Your task to perform on an android device: toggle notifications settings in the gmail app Image 0: 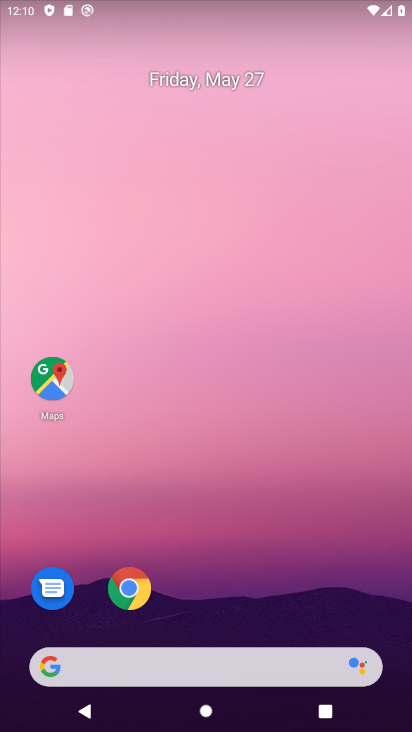
Step 0: drag from (219, 621) to (201, 23)
Your task to perform on an android device: toggle notifications settings in the gmail app Image 1: 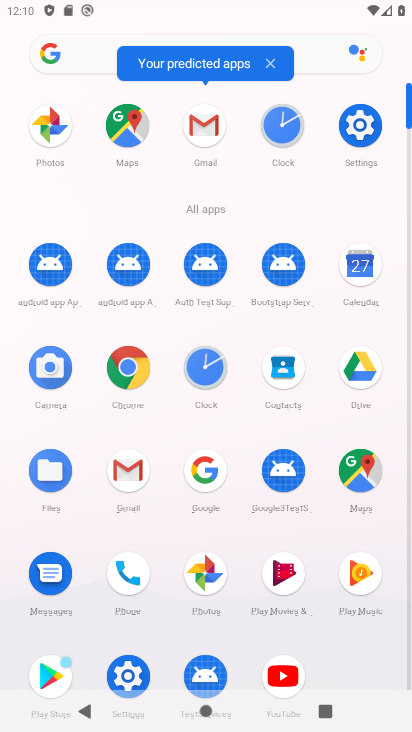
Step 1: click (136, 479)
Your task to perform on an android device: toggle notifications settings in the gmail app Image 2: 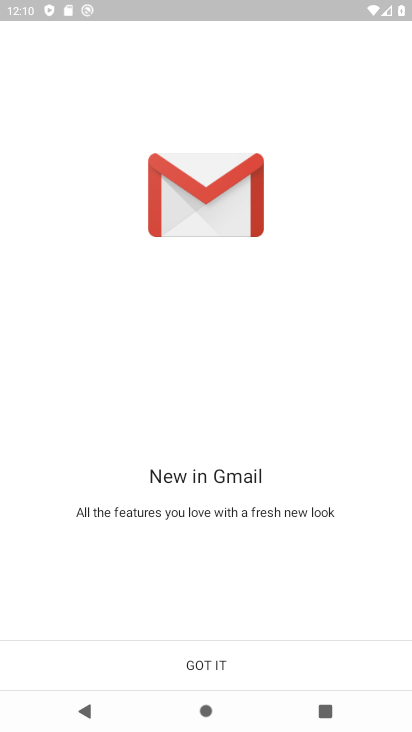
Step 2: click (233, 653)
Your task to perform on an android device: toggle notifications settings in the gmail app Image 3: 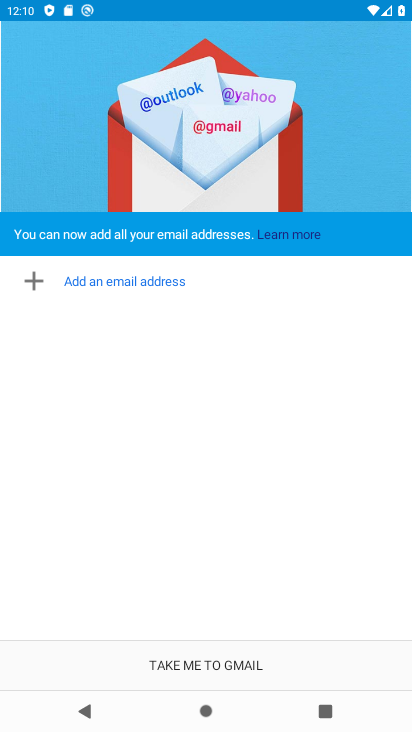
Step 3: click (234, 652)
Your task to perform on an android device: toggle notifications settings in the gmail app Image 4: 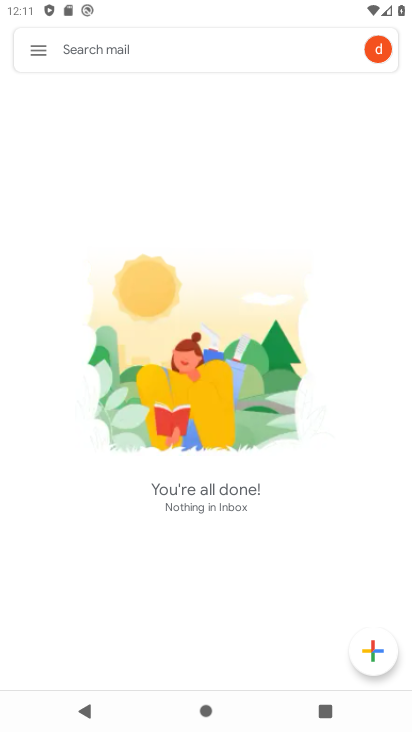
Step 4: press home button
Your task to perform on an android device: toggle notifications settings in the gmail app Image 5: 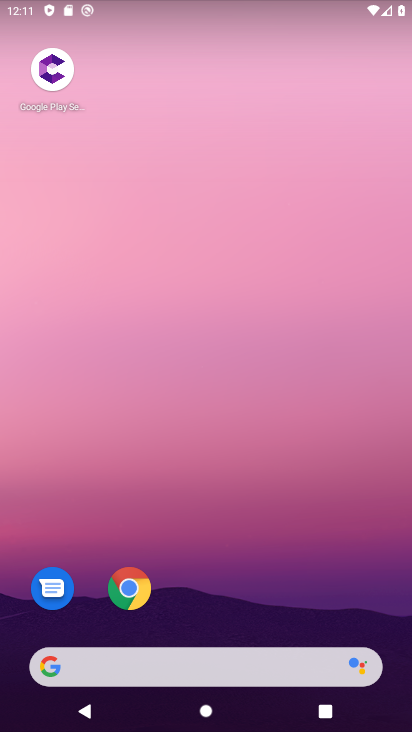
Step 5: drag from (207, 642) to (350, 6)
Your task to perform on an android device: toggle notifications settings in the gmail app Image 6: 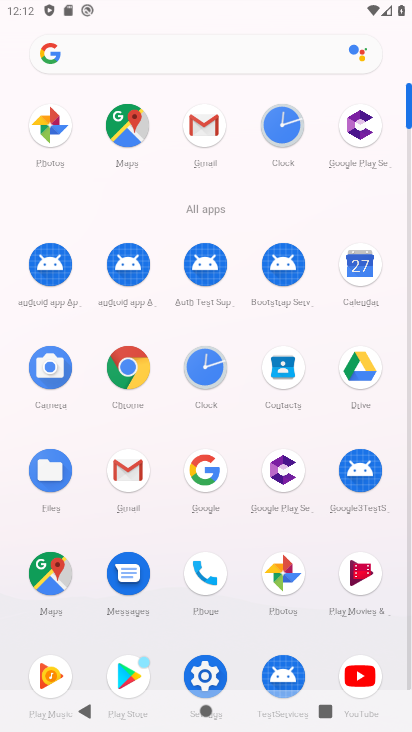
Step 6: click (125, 465)
Your task to perform on an android device: toggle notifications settings in the gmail app Image 7: 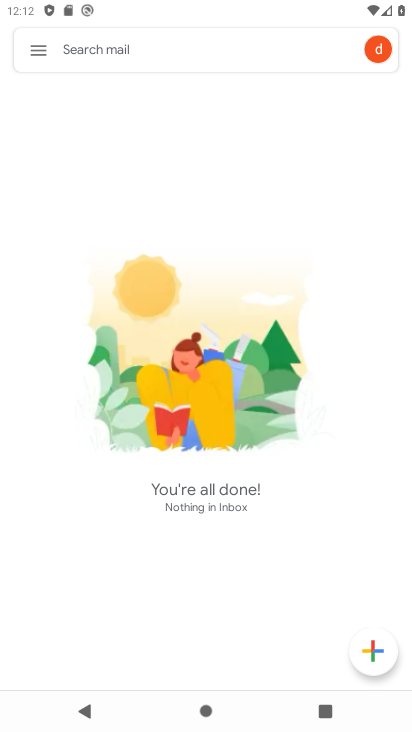
Step 7: click (48, 45)
Your task to perform on an android device: toggle notifications settings in the gmail app Image 8: 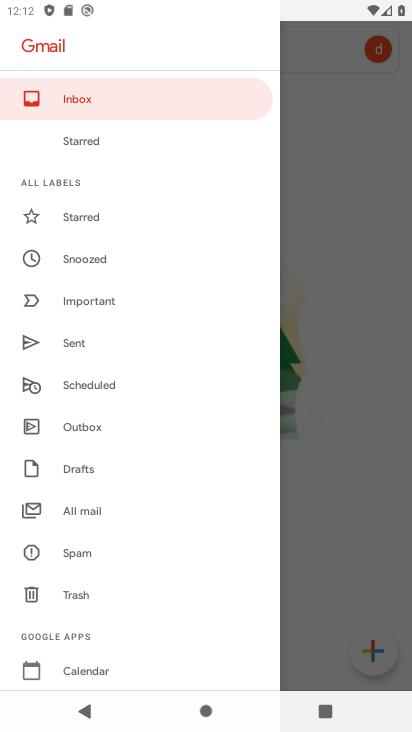
Step 8: drag from (102, 637) to (102, 84)
Your task to perform on an android device: toggle notifications settings in the gmail app Image 9: 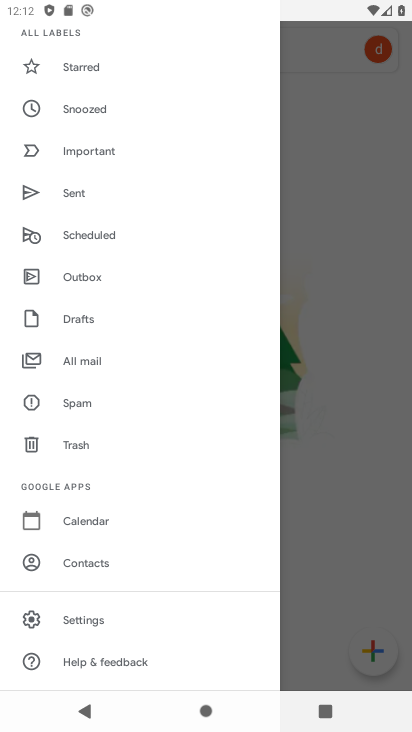
Step 9: click (86, 620)
Your task to perform on an android device: toggle notifications settings in the gmail app Image 10: 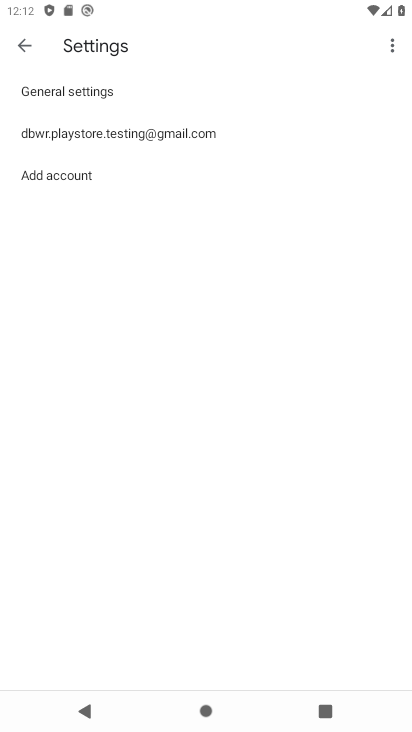
Step 10: click (74, 95)
Your task to perform on an android device: toggle notifications settings in the gmail app Image 11: 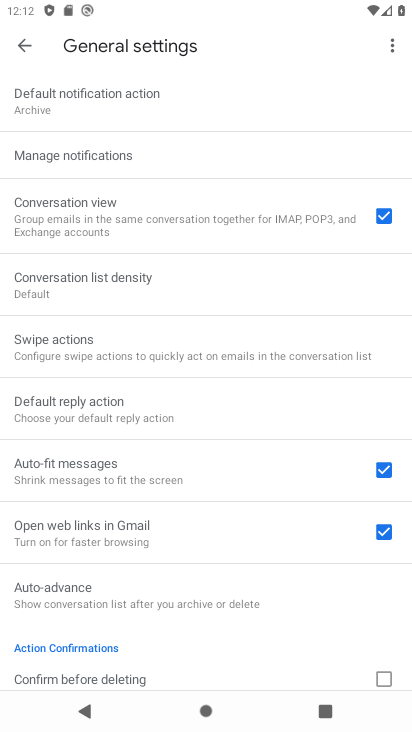
Step 11: click (91, 159)
Your task to perform on an android device: toggle notifications settings in the gmail app Image 12: 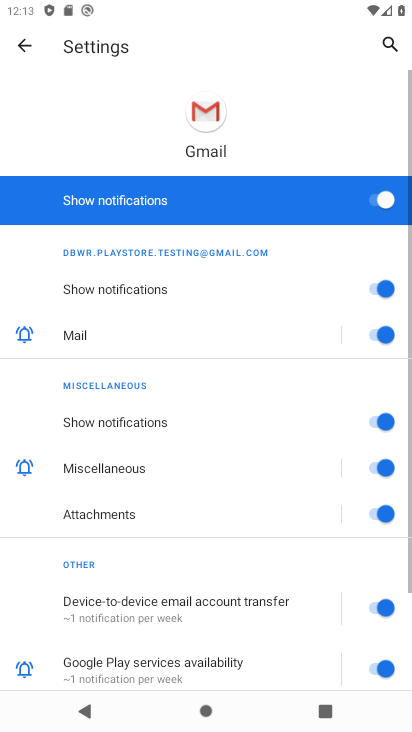
Step 12: click (380, 196)
Your task to perform on an android device: toggle notifications settings in the gmail app Image 13: 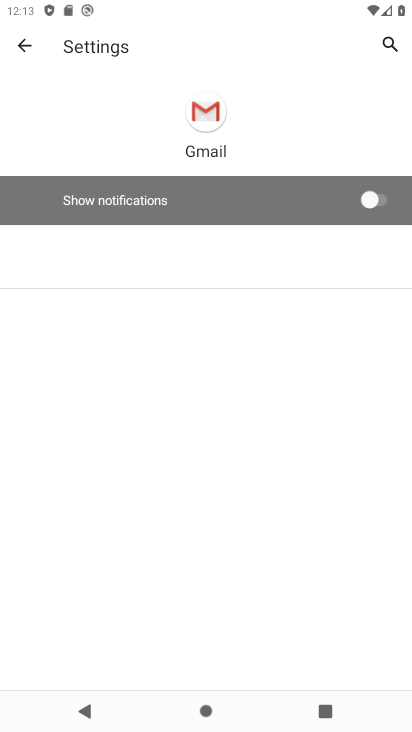
Step 13: task complete